Your task to perform on an android device: Go to accessibility settings Image 0: 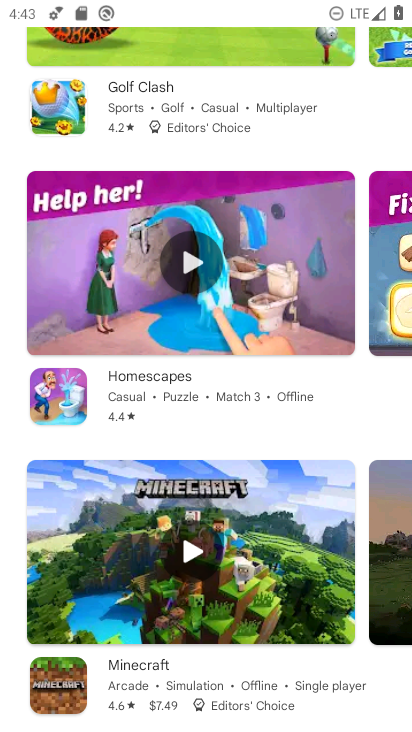
Step 0: press home button
Your task to perform on an android device: Go to accessibility settings Image 1: 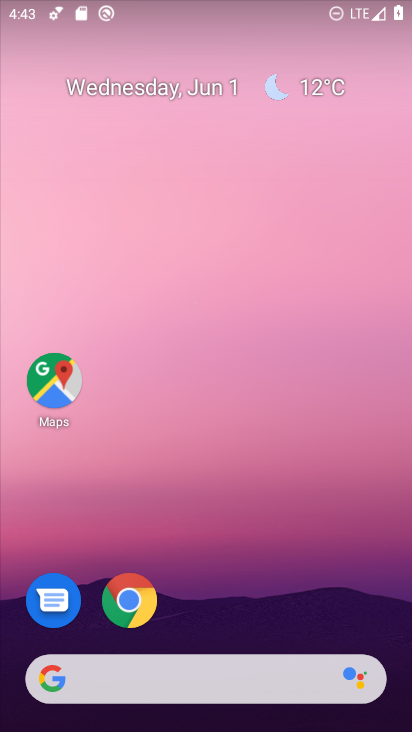
Step 1: drag from (382, 632) to (305, 112)
Your task to perform on an android device: Go to accessibility settings Image 2: 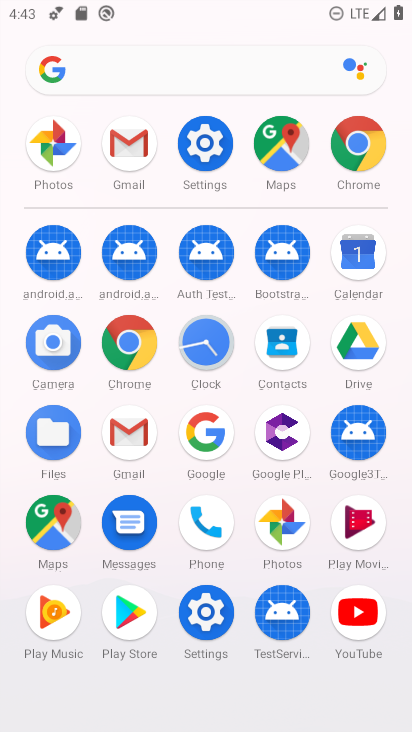
Step 2: click (206, 612)
Your task to perform on an android device: Go to accessibility settings Image 3: 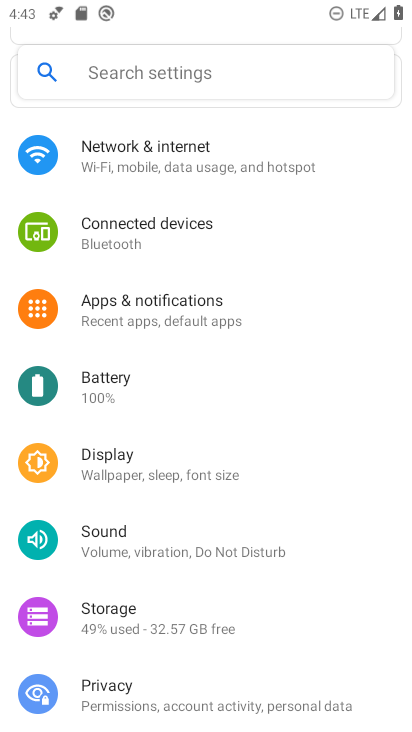
Step 3: drag from (319, 666) to (326, 148)
Your task to perform on an android device: Go to accessibility settings Image 4: 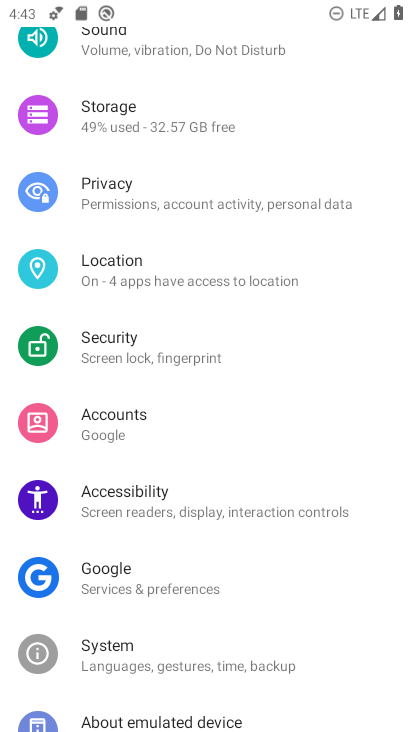
Step 4: drag from (301, 653) to (324, 212)
Your task to perform on an android device: Go to accessibility settings Image 5: 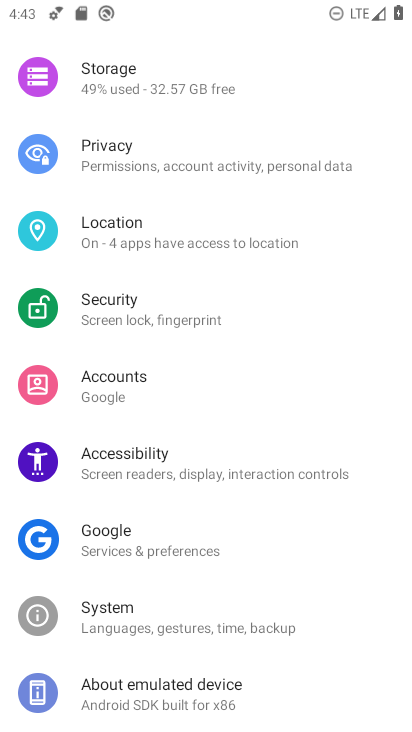
Step 5: click (107, 464)
Your task to perform on an android device: Go to accessibility settings Image 6: 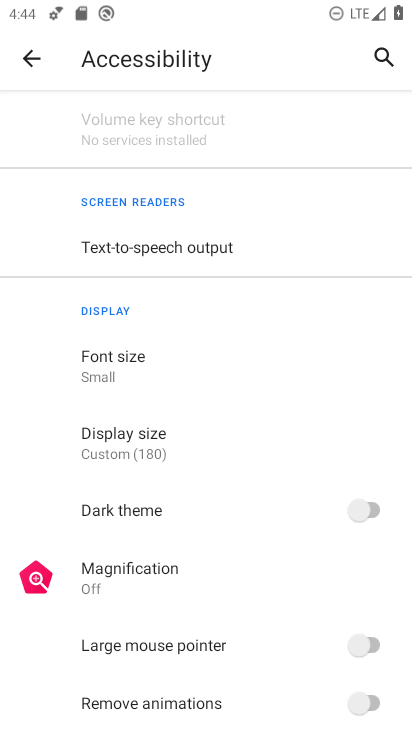
Step 6: task complete